Your task to perform on an android device: turn smart compose on in the gmail app Image 0: 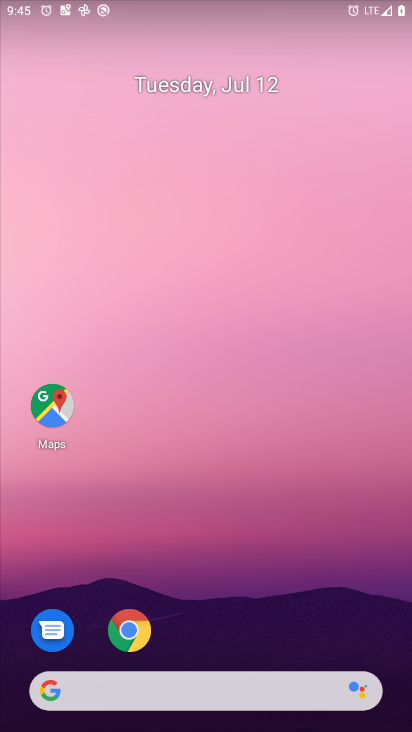
Step 0: press home button
Your task to perform on an android device: turn smart compose on in the gmail app Image 1: 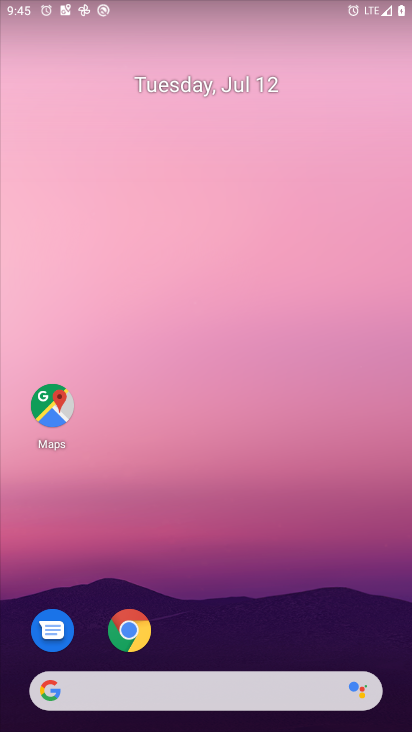
Step 1: drag from (271, 632) to (241, 154)
Your task to perform on an android device: turn smart compose on in the gmail app Image 2: 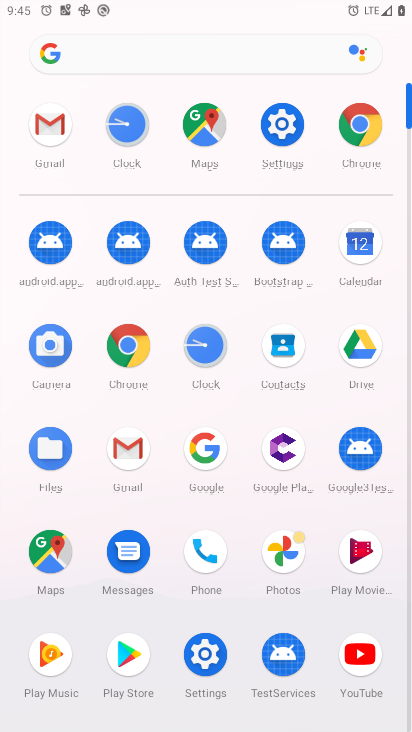
Step 2: click (42, 122)
Your task to perform on an android device: turn smart compose on in the gmail app Image 3: 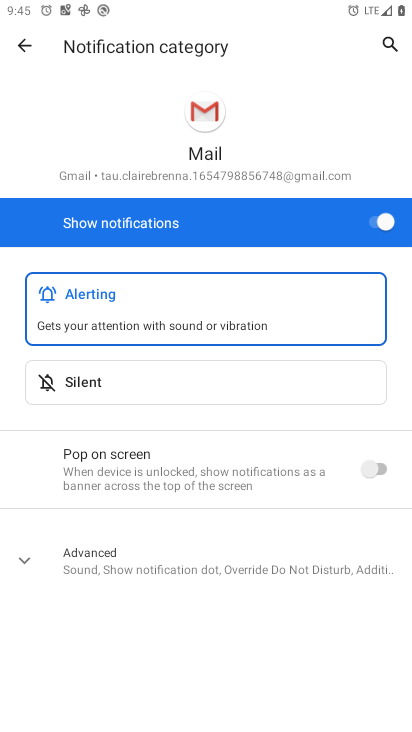
Step 3: click (25, 44)
Your task to perform on an android device: turn smart compose on in the gmail app Image 4: 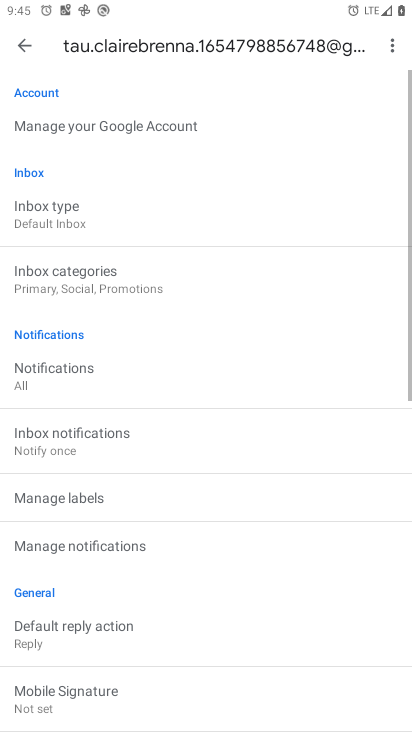
Step 4: click (25, 44)
Your task to perform on an android device: turn smart compose on in the gmail app Image 5: 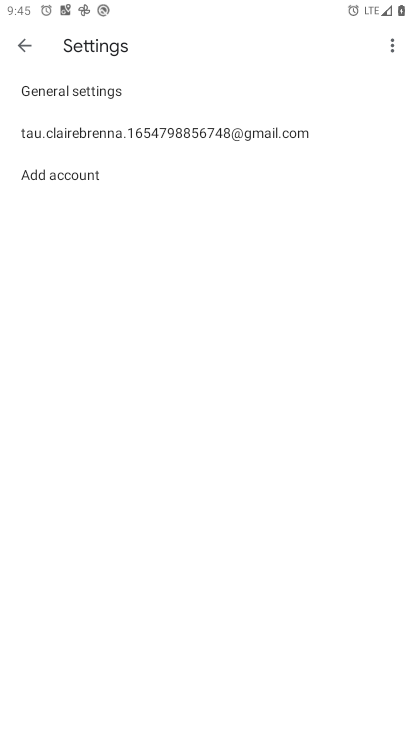
Step 5: click (25, 44)
Your task to perform on an android device: turn smart compose on in the gmail app Image 6: 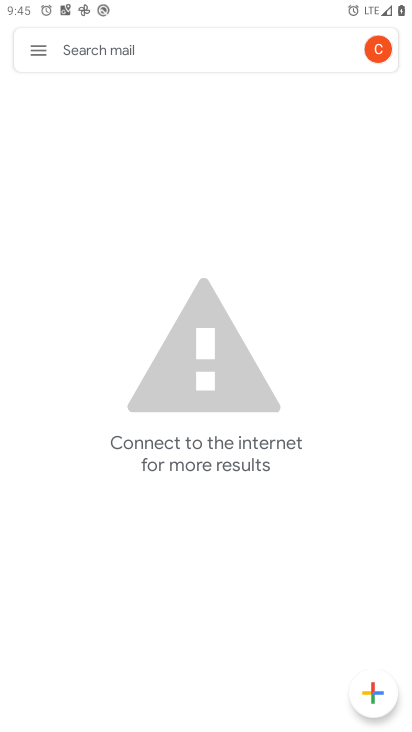
Step 6: click (44, 44)
Your task to perform on an android device: turn smart compose on in the gmail app Image 7: 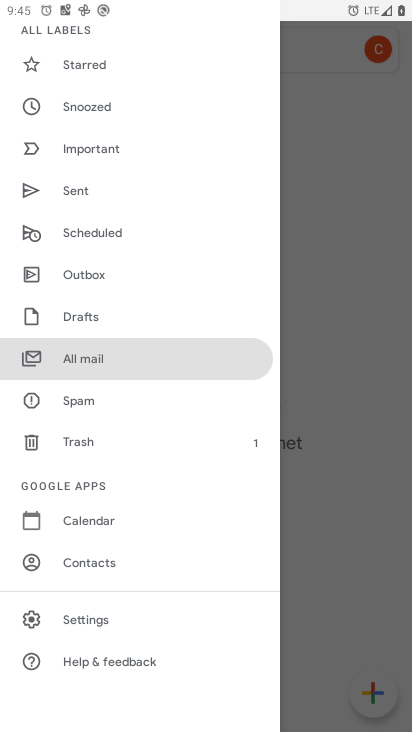
Step 7: click (76, 614)
Your task to perform on an android device: turn smart compose on in the gmail app Image 8: 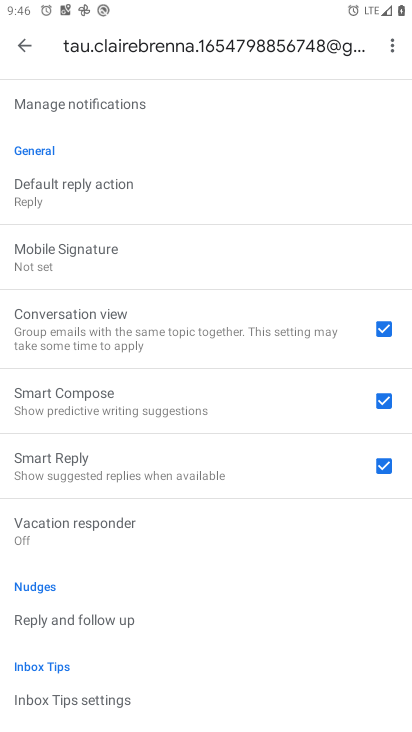
Step 8: task complete